Your task to perform on an android device: open app "Walmart Shopping & Grocery" (install if not already installed), go to login, and select forgot password Image 0: 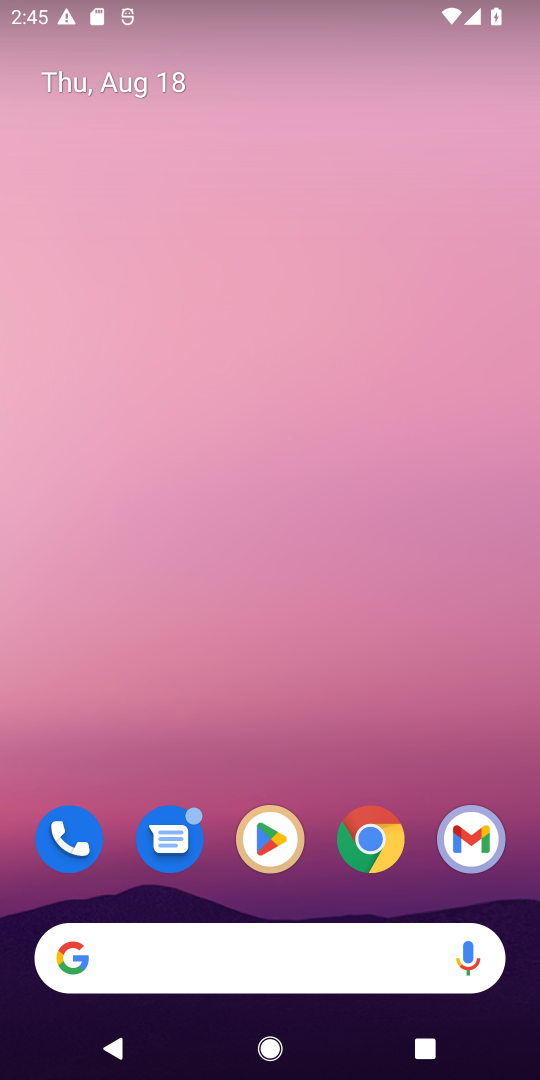
Step 0: click (271, 850)
Your task to perform on an android device: open app "Walmart Shopping & Grocery" (install if not already installed), go to login, and select forgot password Image 1: 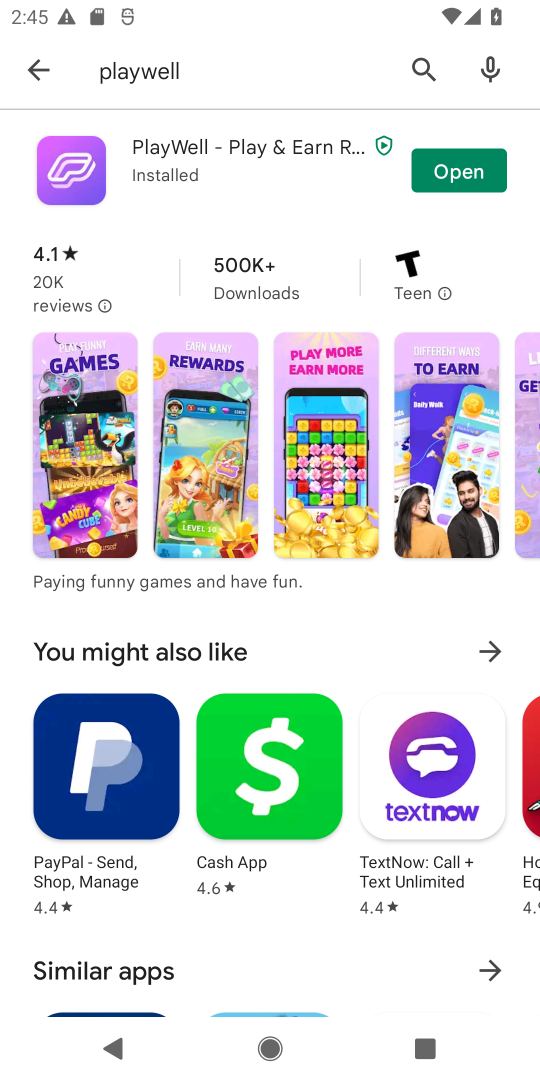
Step 1: click (36, 83)
Your task to perform on an android device: open app "Walmart Shopping & Grocery" (install if not already installed), go to login, and select forgot password Image 2: 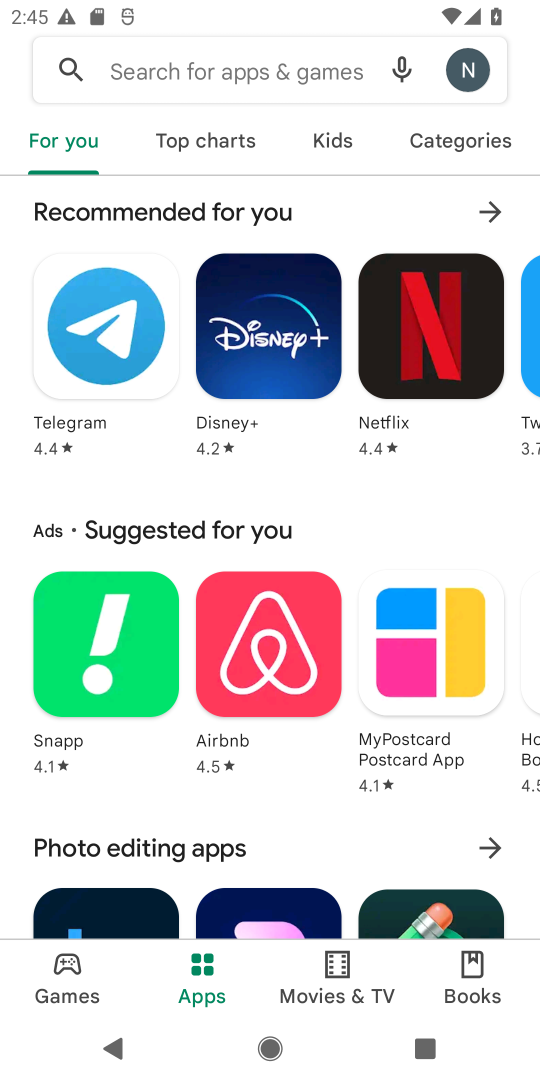
Step 2: click (172, 80)
Your task to perform on an android device: open app "Walmart Shopping & Grocery" (install if not already installed), go to login, and select forgot password Image 3: 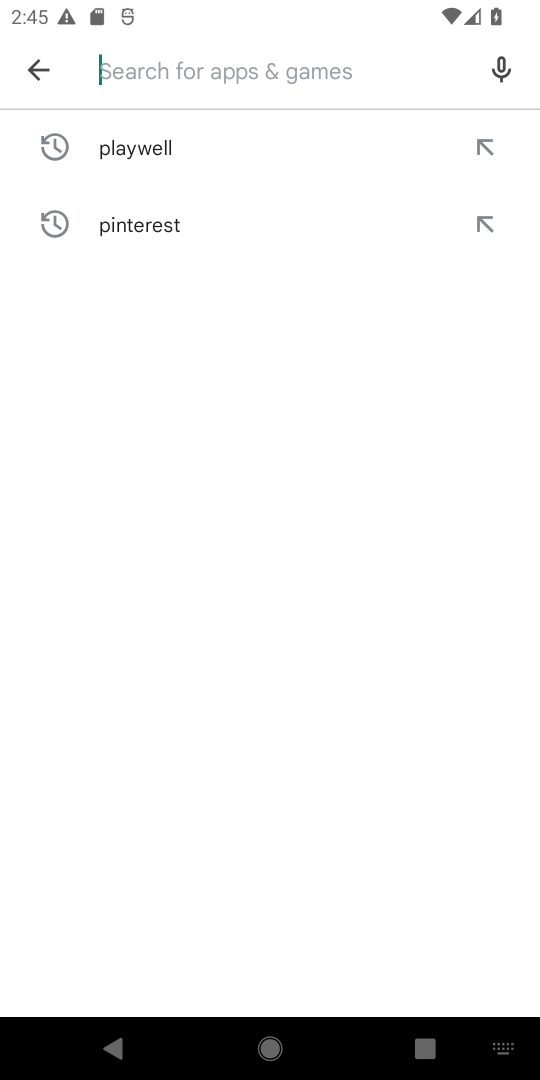
Step 3: type "Walmart Shopping & Grocery"
Your task to perform on an android device: open app "Walmart Shopping & Grocery" (install if not already installed), go to login, and select forgot password Image 4: 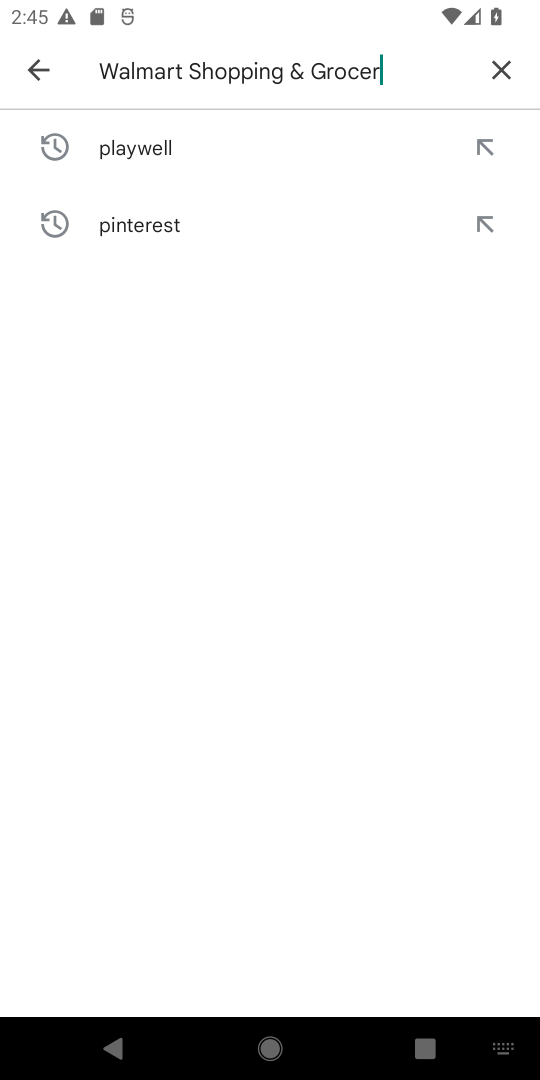
Step 4: type ""
Your task to perform on an android device: open app "Walmart Shopping & Grocery" (install if not already installed), go to login, and select forgot password Image 5: 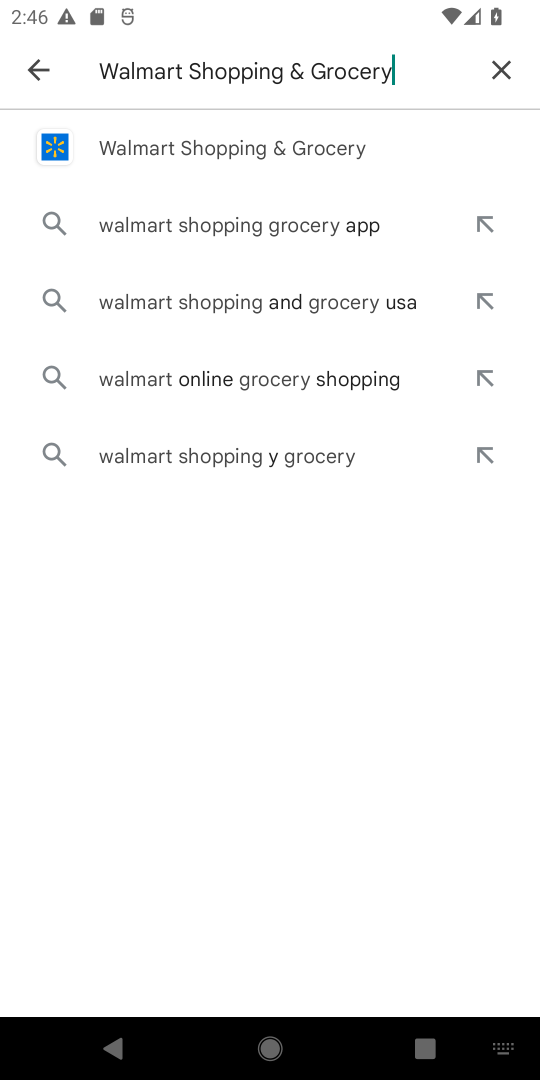
Step 5: click (215, 158)
Your task to perform on an android device: open app "Walmart Shopping & Grocery" (install if not already installed), go to login, and select forgot password Image 6: 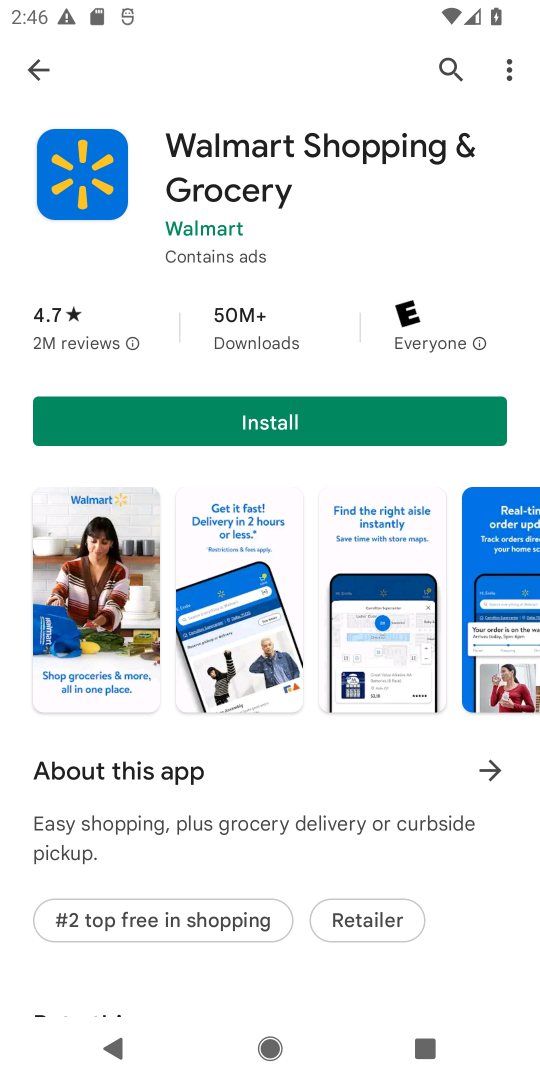
Step 6: click (182, 421)
Your task to perform on an android device: open app "Walmart Shopping & Grocery" (install if not already installed), go to login, and select forgot password Image 7: 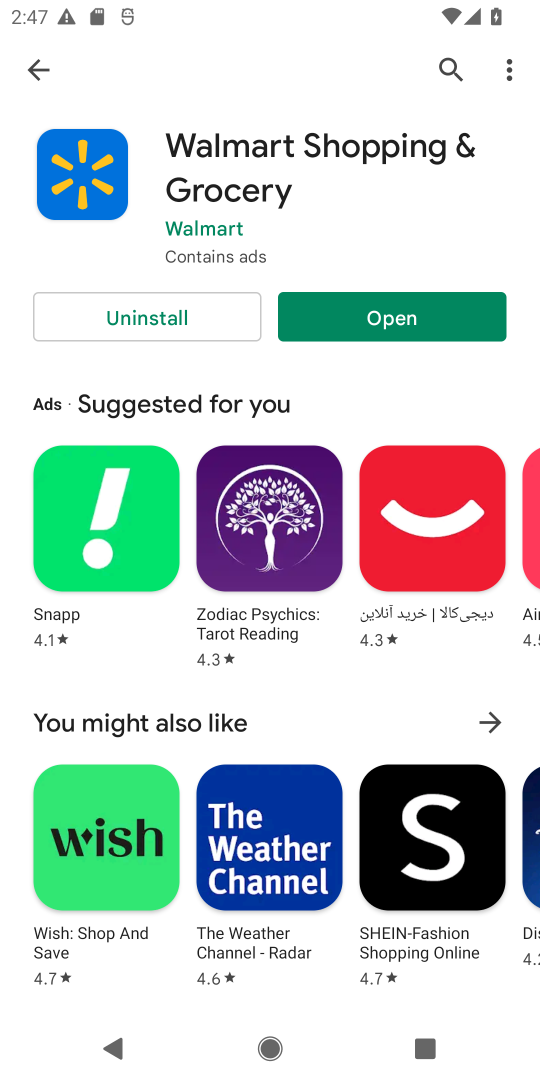
Step 7: click (482, 316)
Your task to perform on an android device: open app "Walmart Shopping & Grocery" (install if not already installed), go to login, and select forgot password Image 8: 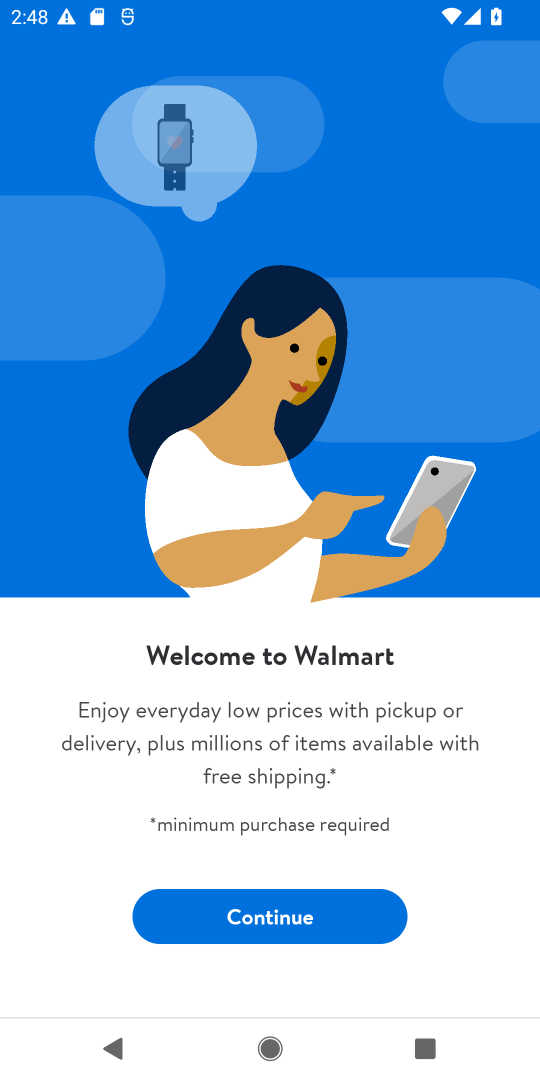
Step 8: click (303, 891)
Your task to perform on an android device: open app "Walmart Shopping & Grocery" (install if not already installed), go to login, and select forgot password Image 9: 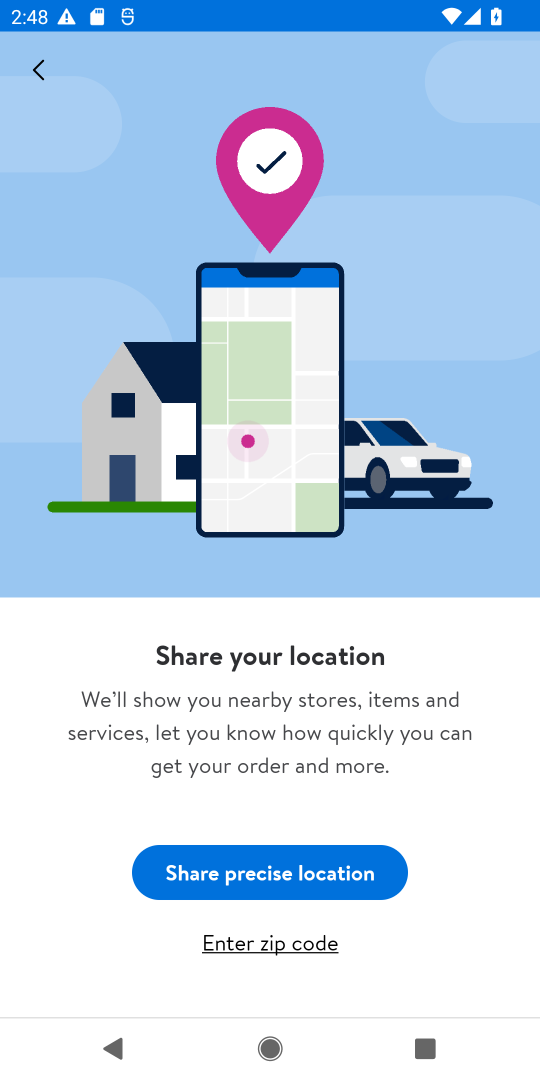
Step 9: click (301, 884)
Your task to perform on an android device: open app "Walmart Shopping & Grocery" (install if not already installed), go to login, and select forgot password Image 10: 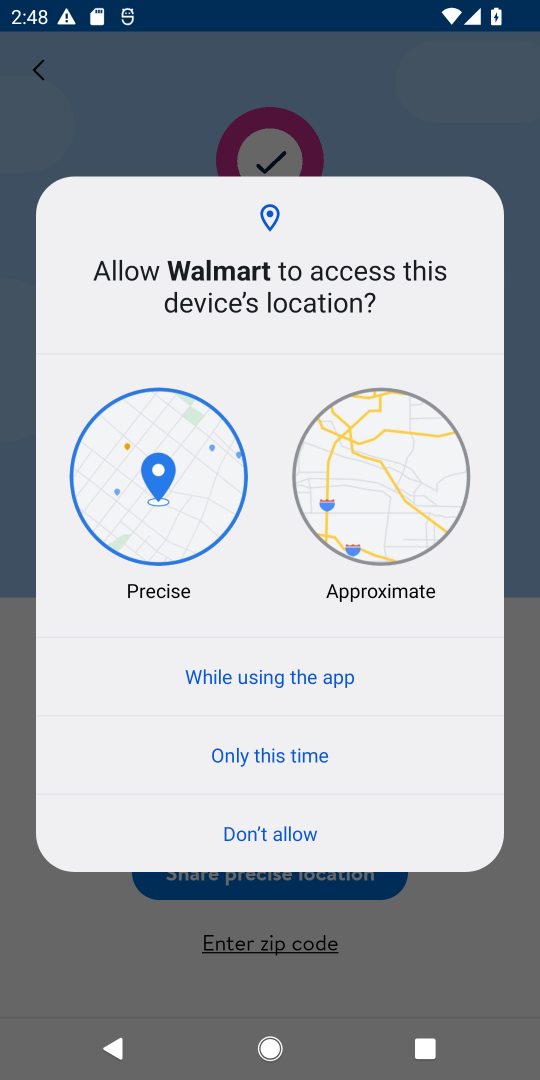
Step 10: click (212, 635)
Your task to perform on an android device: open app "Walmart Shopping & Grocery" (install if not already installed), go to login, and select forgot password Image 11: 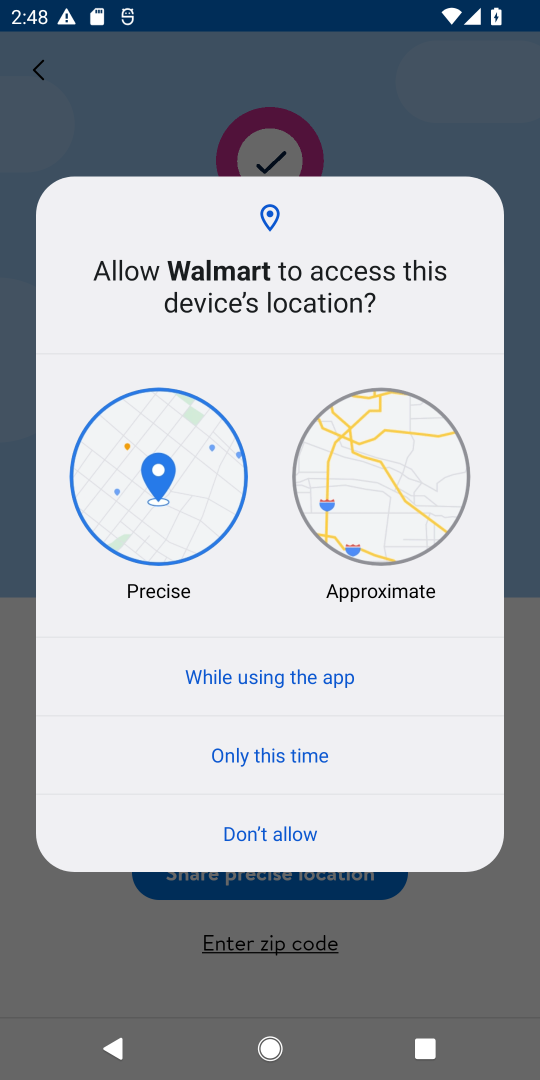
Step 11: click (233, 701)
Your task to perform on an android device: open app "Walmart Shopping & Grocery" (install if not already installed), go to login, and select forgot password Image 12: 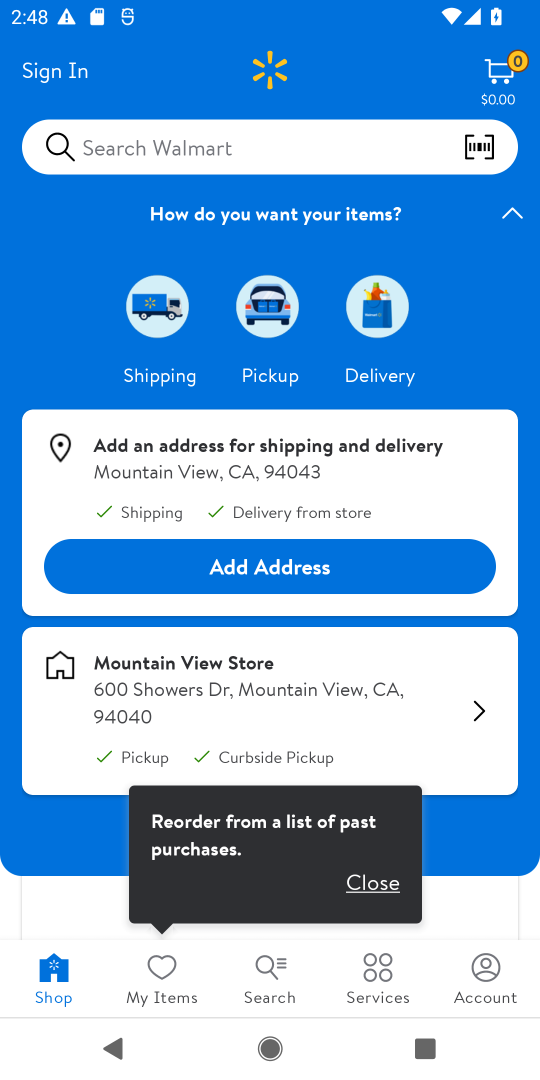
Step 12: click (32, 86)
Your task to perform on an android device: open app "Walmart Shopping & Grocery" (install if not already installed), go to login, and select forgot password Image 13: 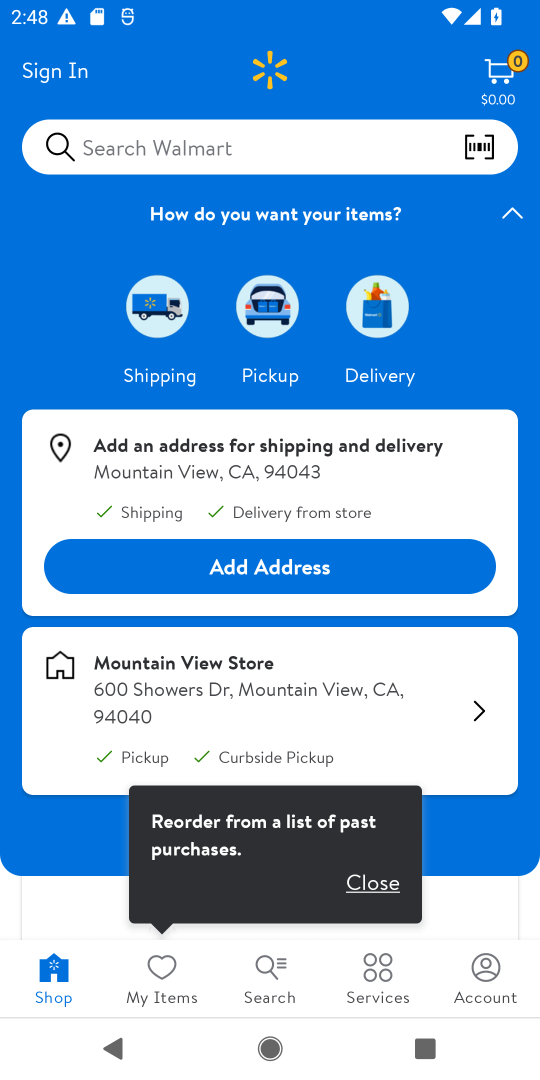
Step 13: click (46, 65)
Your task to perform on an android device: open app "Walmart Shopping & Grocery" (install if not already installed), go to login, and select forgot password Image 14: 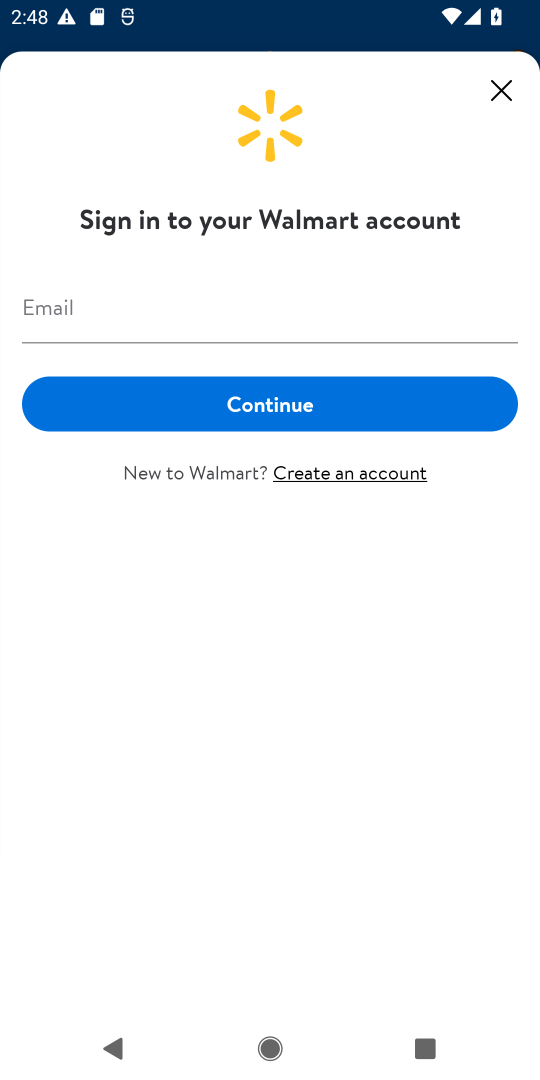
Step 14: click (117, 324)
Your task to perform on an android device: open app "Walmart Shopping & Grocery" (install if not already installed), go to login, and select forgot password Image 15: 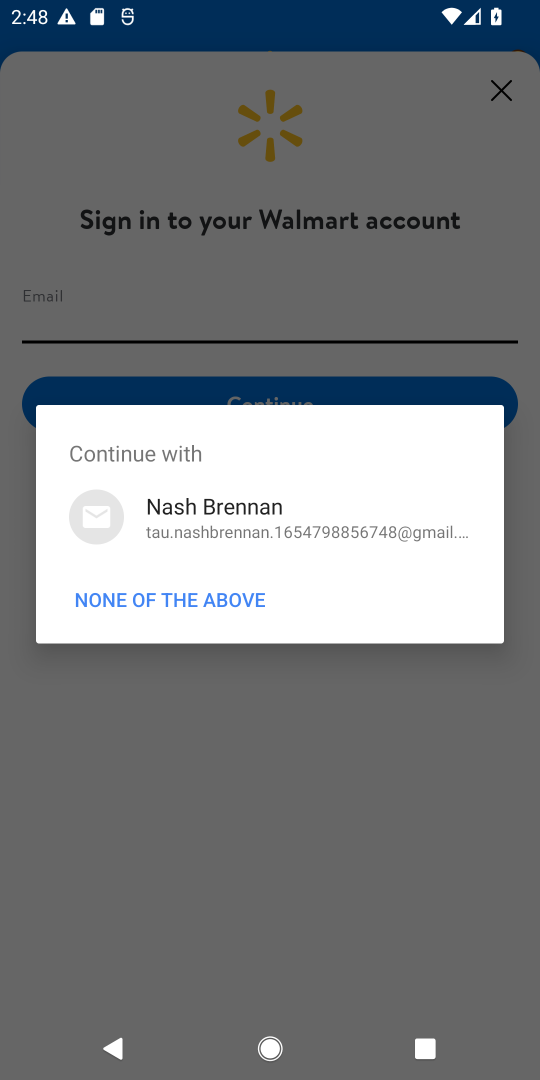
Step 15: click (200, 513)
Your task to perform on an android device: open app "Walmart Shopping & Grocery" (install if not already installed), go to login, and select forgot password Image 16: 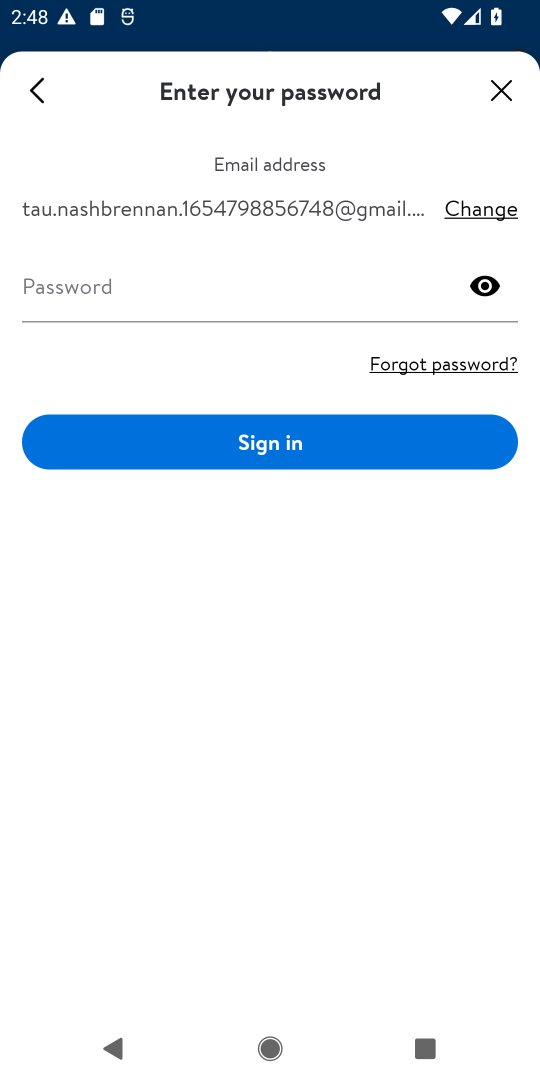
Step 16: click (416, 349)
Your task to perform on an android device: open app "Walmart Shopping & Grocery" (install if not already installed), go to login, and select forgot password Image 17: 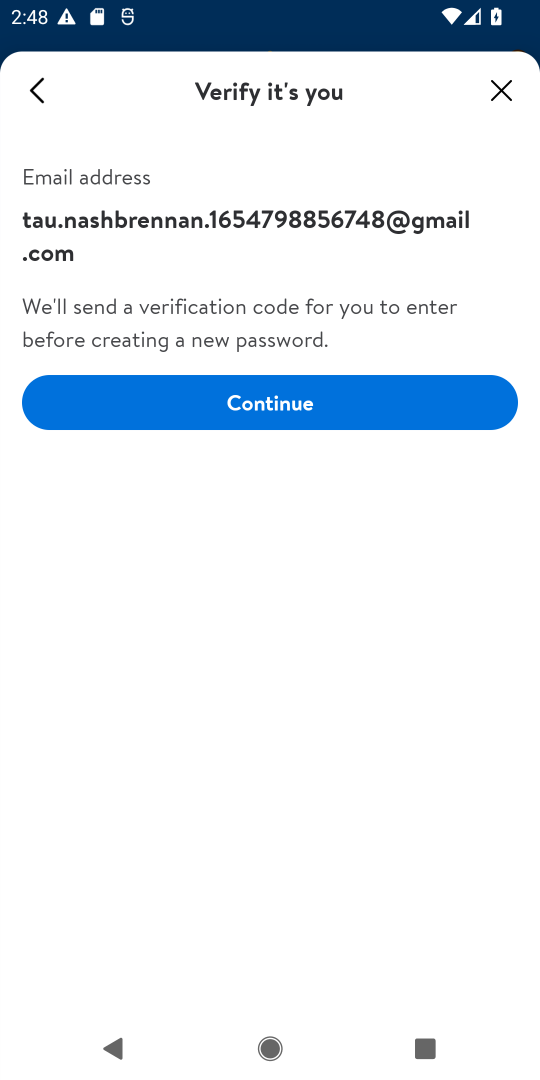
Step 17: task complete